Your task to perform on an android device: turn off notifications settings in the gmail app Image 0: 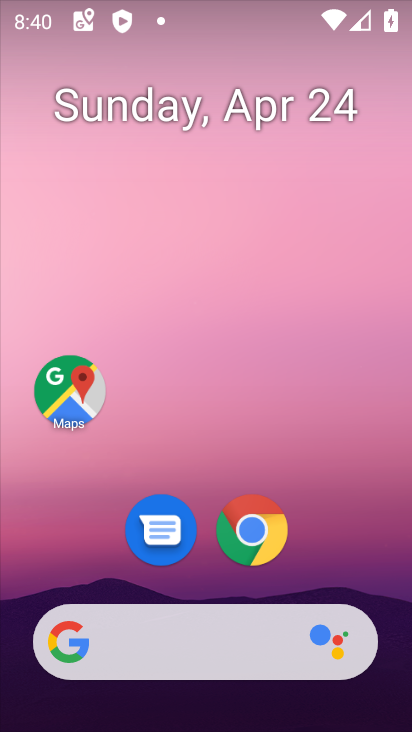
Step 0: drag from (214, 596) to (199, 197)
Your task to perform on an android device: turn off notifications settings in the gmail app Image 1: 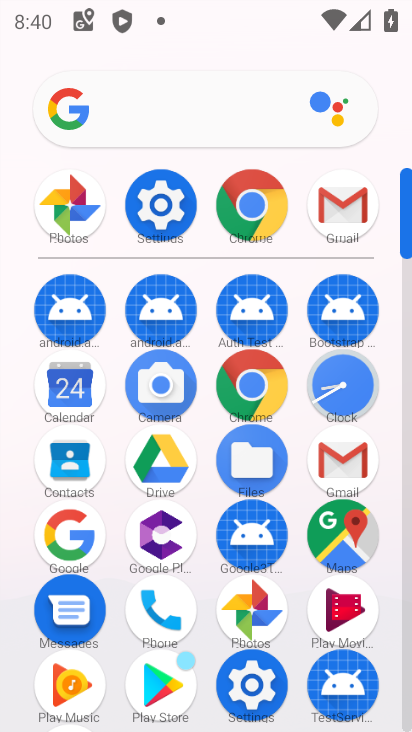
Step 1: click (344, 234)
Your task to perform on an android device: turn off notifications settings in the gmail app Image 2: 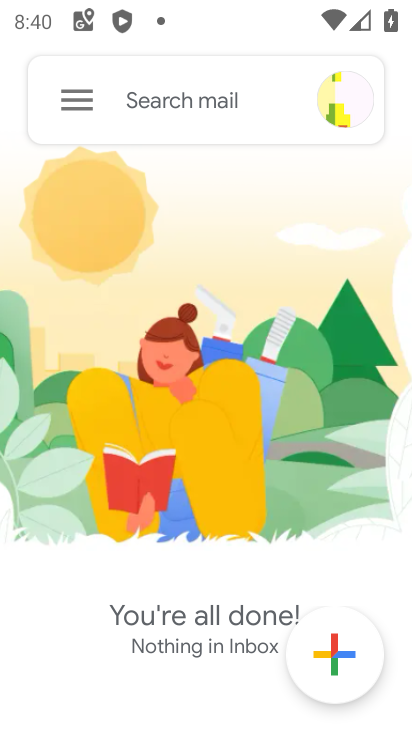
Step 2: click (83, 93)
Your task to perform on an android device: turn off notifications settings in the gmail app Image 3: 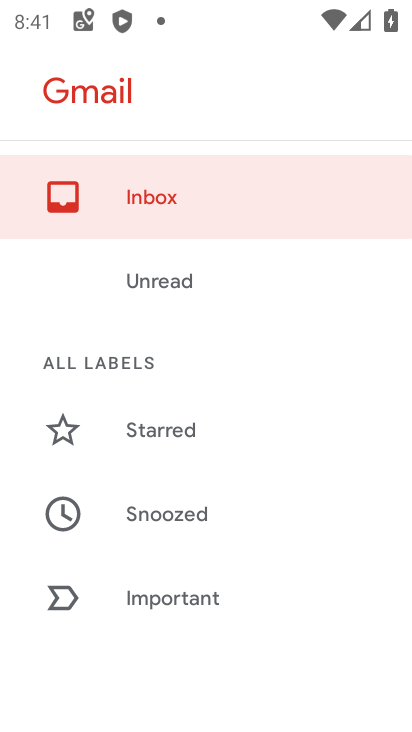
Step 3: drag from (165, 618) to (164, 48)
Your task to perform on an android device: turn off notifications settings in the gmail app Image 4: 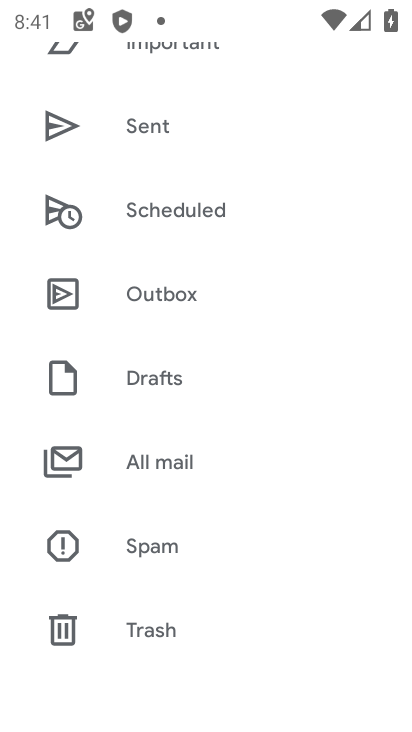
Step 4: drag from (132, 550) to (150, 102)
Your task to perform on an android device: turn off notifications settings in the gmail app Image 5: 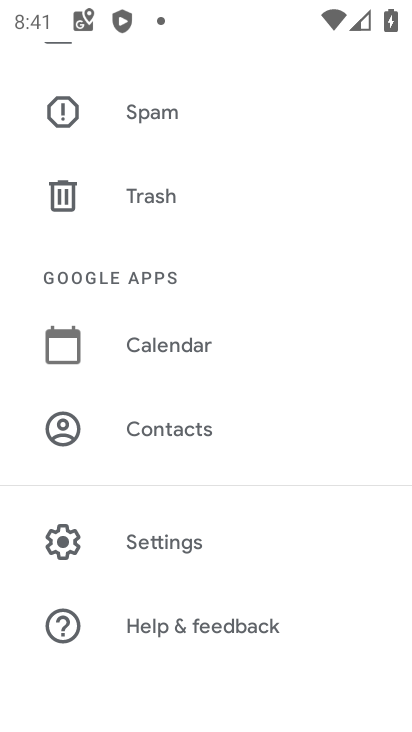
Step 5: click (130, 549)
Your task to perform on an android device: turn off notifications settings in the gmail app Image 6: 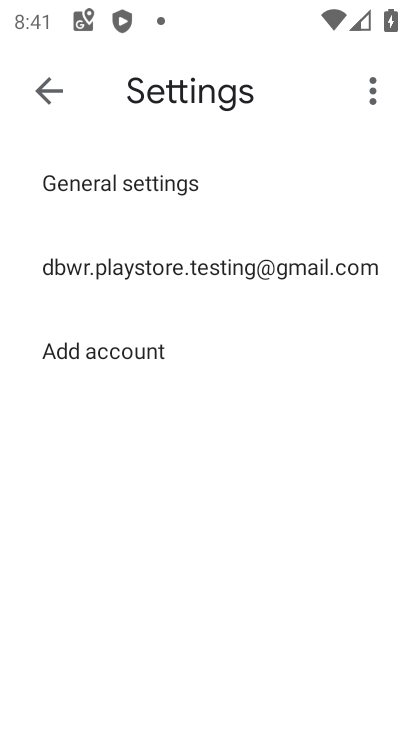
Step 6: click (231, 272)
Your task to perform on an android device: turn off notifications settings in the gmail app Image 7: 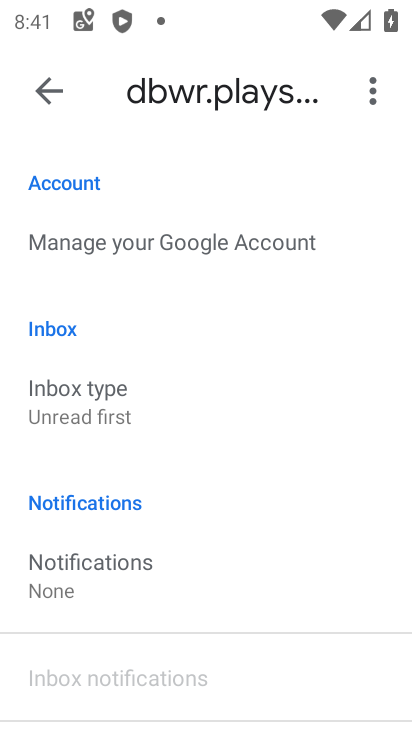
Step 7: click (163, 546)
Your task to perform on an android device: turn off notifications settings in the gmail app Image 8: 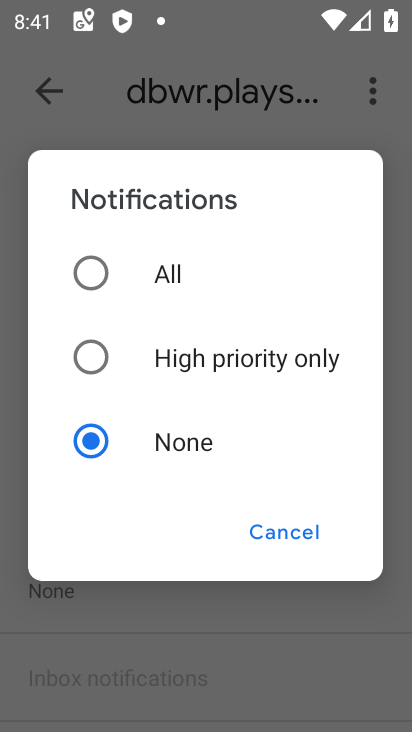
Step 8: task complete